Your task to perform on an android device: check out phone information Image 0: 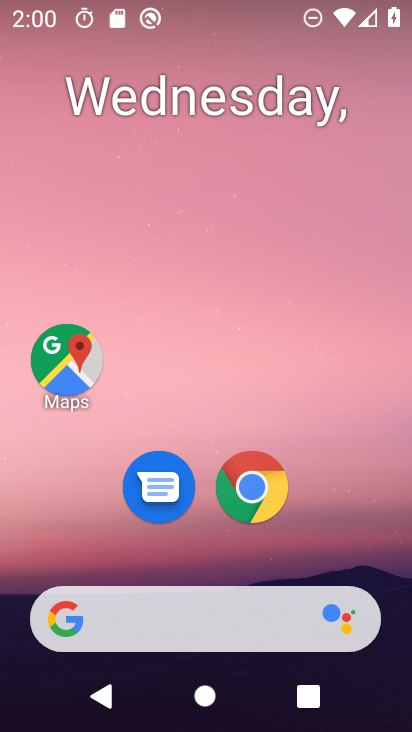
Step 0: drag from (223, 593) to (248, 61)
Your task to perform on an android device: check out phone information Image 1: 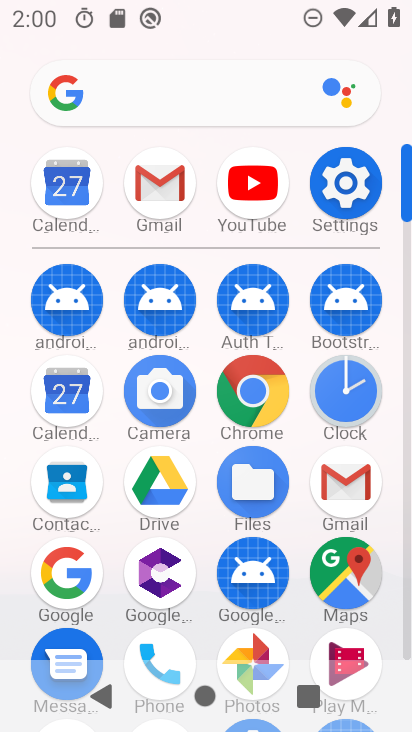
Step 1: click (356, 199)
Your task to perform on an android device: check out phone information Image 2: 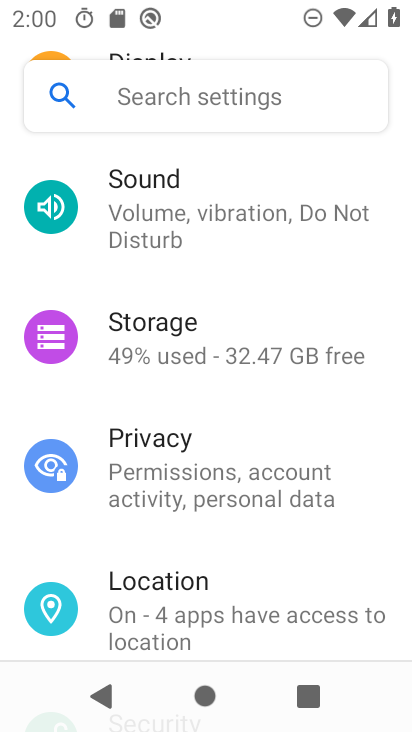
Step 2: drag from (206, 635) to (297, 30)
Your task to perform on an android device: check out phone information Image 3: 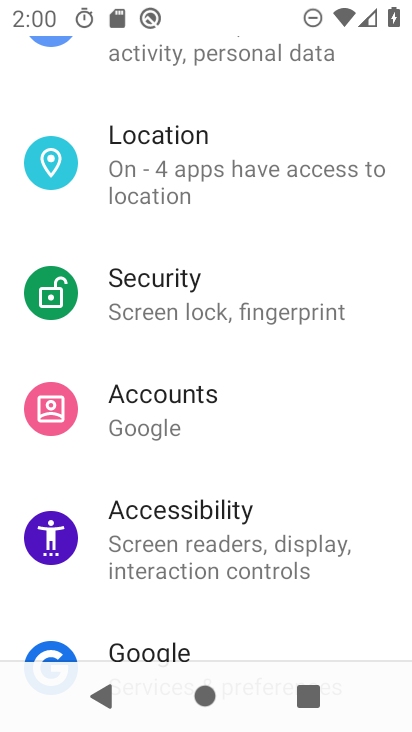
Step 3: drag from (222, 606) to (320, 55)
Your task to perform on an android device: check out phone information Image 4: 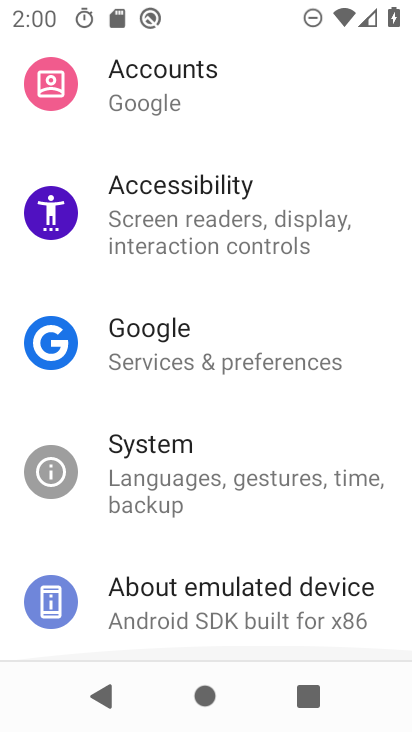
Step 4: drag from (223, 579) to (317, 20)
Your task to perform on an android device: check out phone information Image 5: 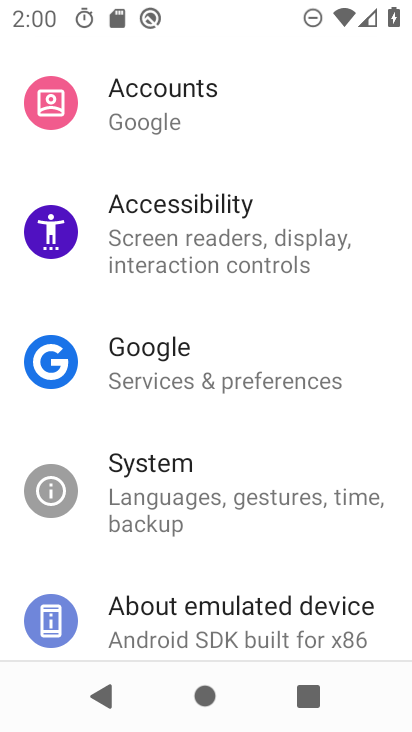
Step 5: click (167, 629)
Your task to perform on an android device: check out phone information Image 6: 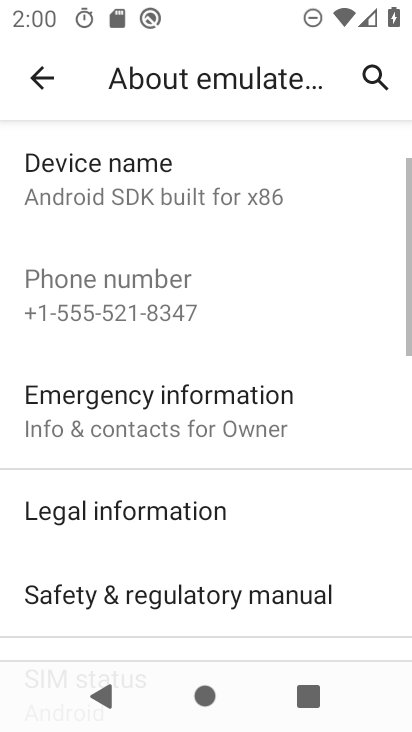
Step 6: task complete